Your task to perform on an android device: set the timer Image 0: 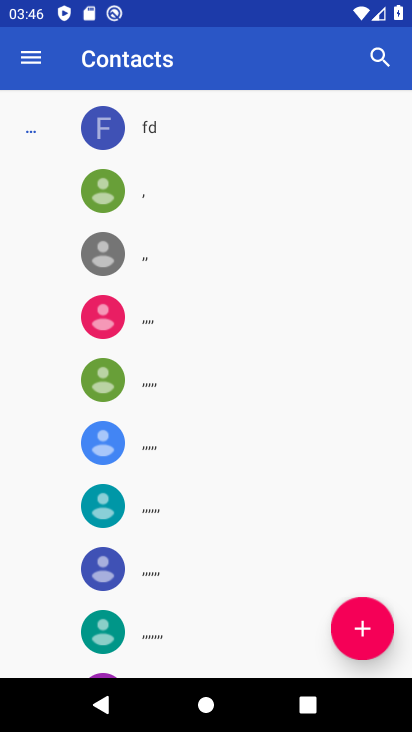
Step 0: press home button
Your task to perform on an android device: set the timer Image 1: 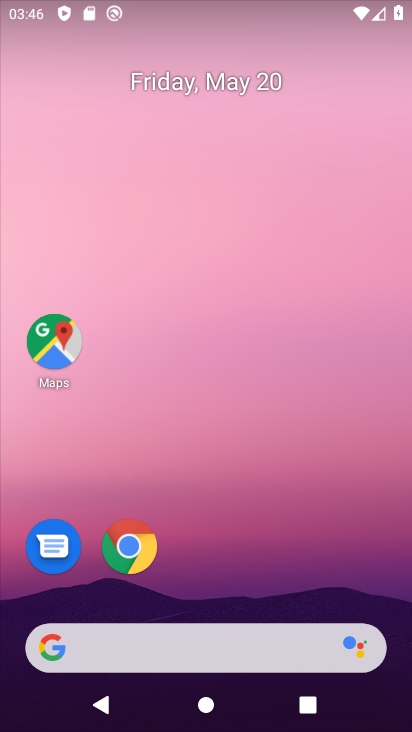
Step 1: drag from (244, 549) to (276, 113)
Your task to perform on an android device: set the timer Image 2: 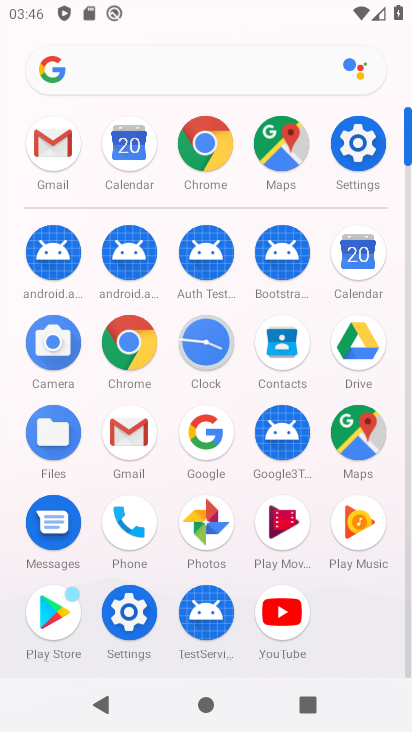
Step 2: click (207, 338)
Your task to perform on an android device: set the timer Image 3: 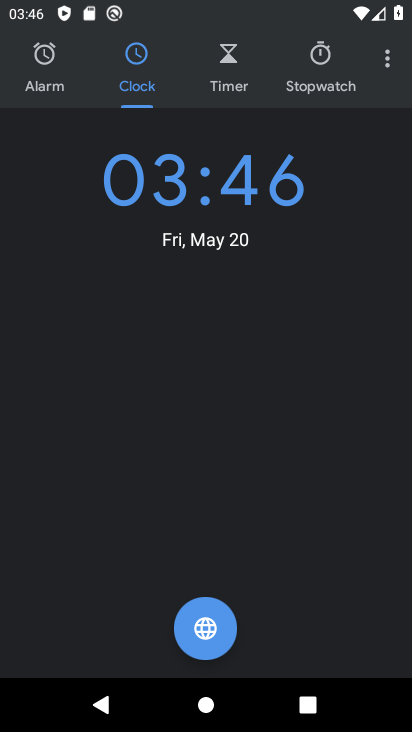
Step 3: click (61, 81)
Your task to perform on an android device: set the timer Image 4: 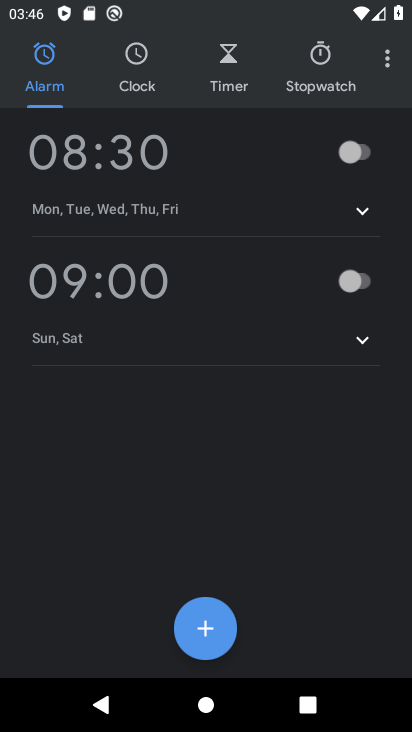
Step 4: click (222, 645)
Your task to perform on an android device: set the timer Image 5: 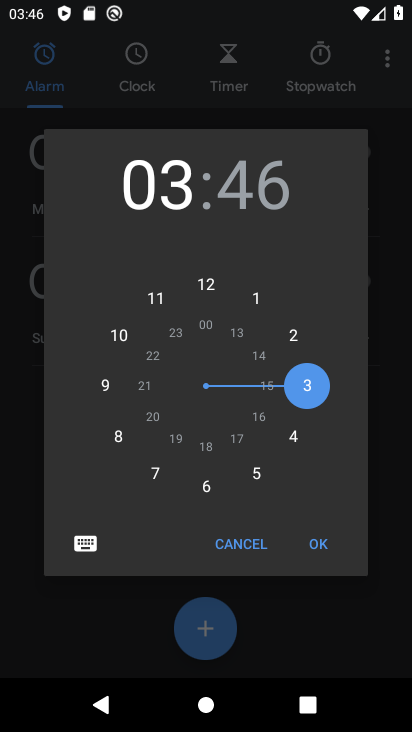
Step 5: click (321, 538)
Your task to perform on an android device: set the timer Image 6: 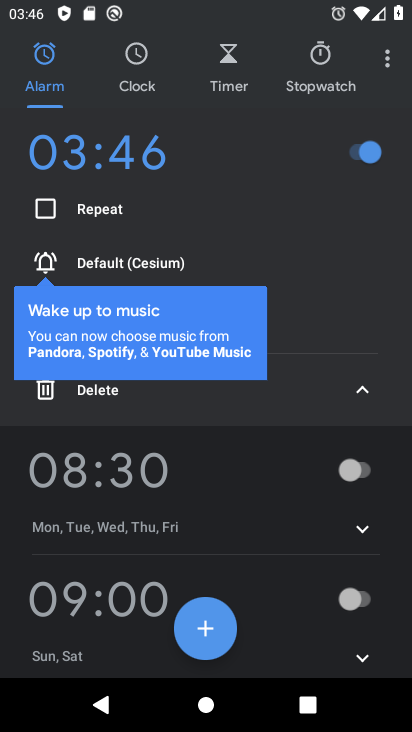
Step 6: click (213, 79)
Your task to perform on an android device: set the timer Image 7: 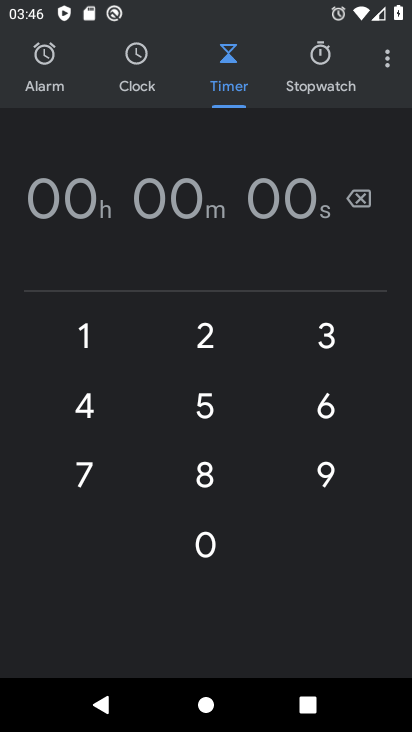
Step 7: click (218, 393)
Your task to perform on an android device: set the timer Image 8: 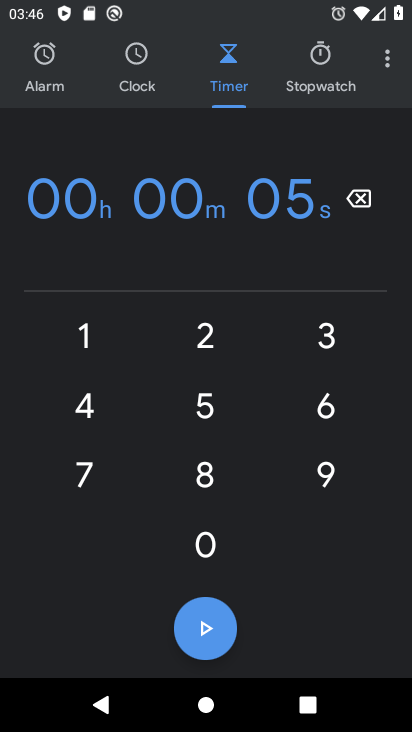
Step 8: task complete